Your task to perform on an android device: Set the phone to "Do not disturb". Image 0: 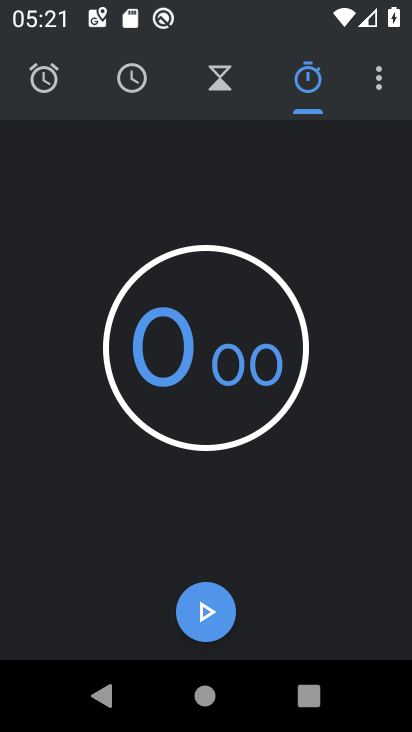
Step 0: press home button
Your task to perform on an android device: Set the phone to "Do not disturb". Image 1: 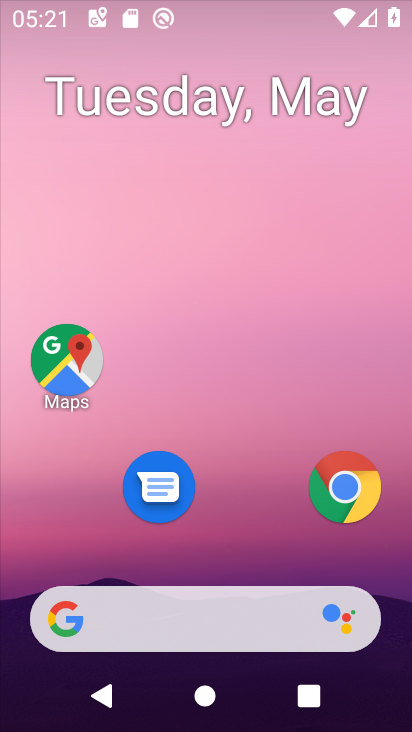
Step 1: drag from (220, 283) to (234, 37)
Your task to perform on an android device: Set the phone to "Do not disturb". Image 2: 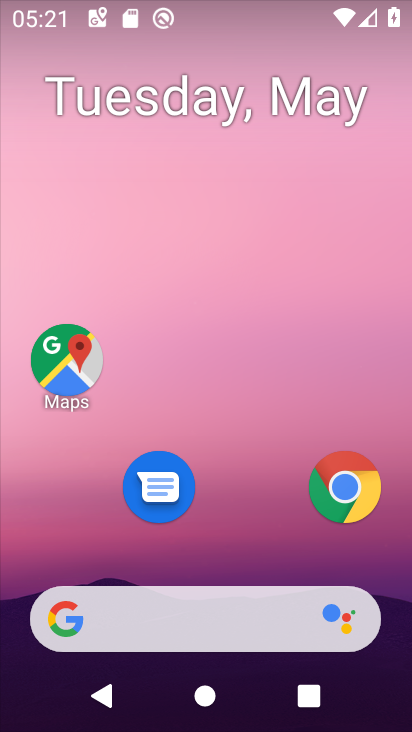
Step 2: drag from (273, 528) to (267, 74)
Your task to perform on an android device: Set the phone to "Do not disturb". Image 3: 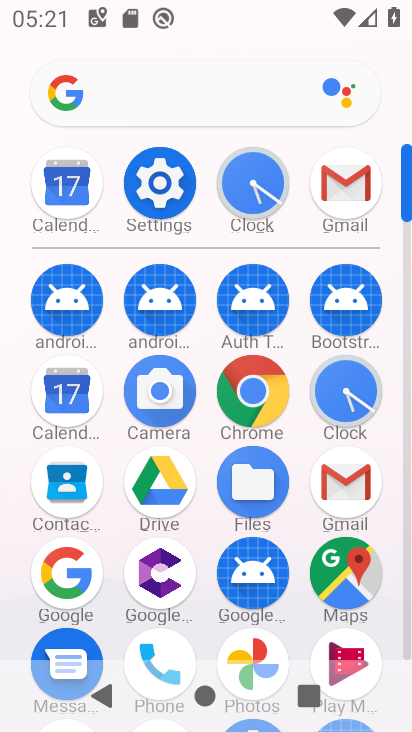
Step 3: click (185, 205)
Your task to perform on an android device: Set the phone to "Do not disturb". Image 4: 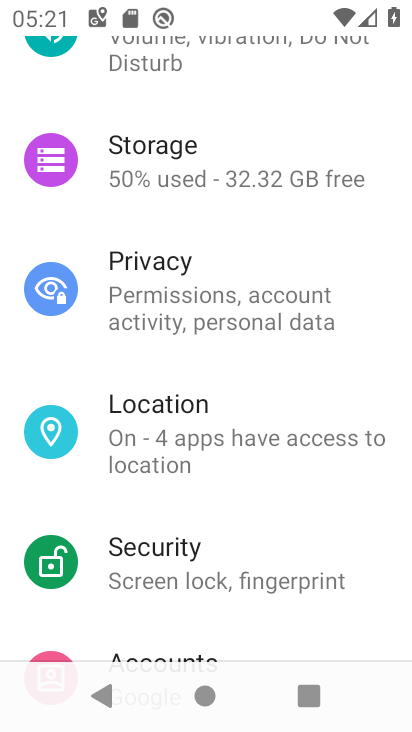
Step 4: drag from (249, 186) to (226, 537)
Your task to perform on an android device: Set the phone to "Do not disturb". Image 5: 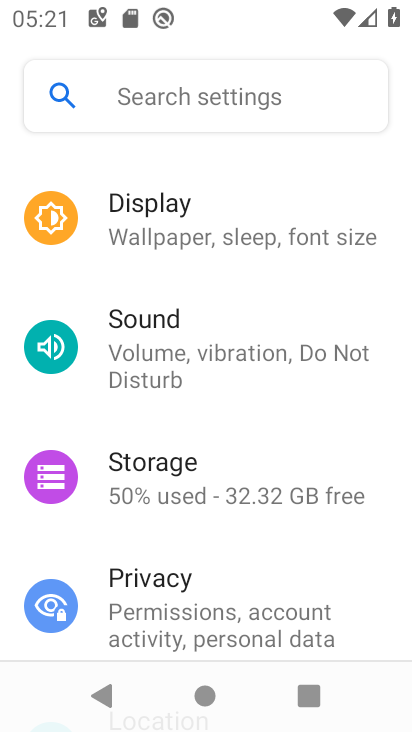
Step 5: click (203, 385)
Your task to perform on an android device: Set the phone to "Do not disturb". Image 6: 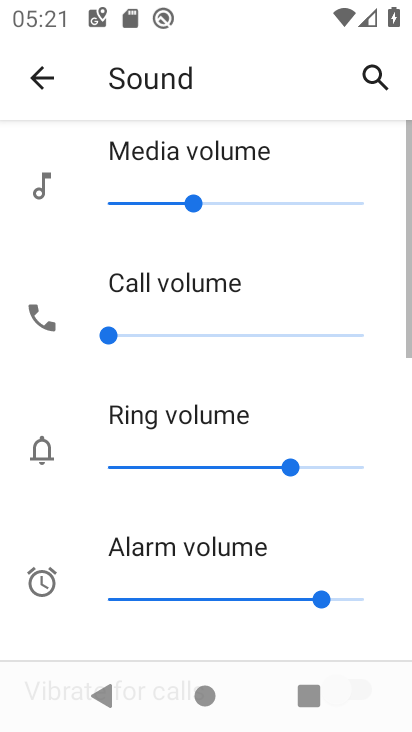
Step 6: drag from (213, 538) to (277, 101)
Your task to perform on an android device: Set the phone to "Do not disturb". Image 7: 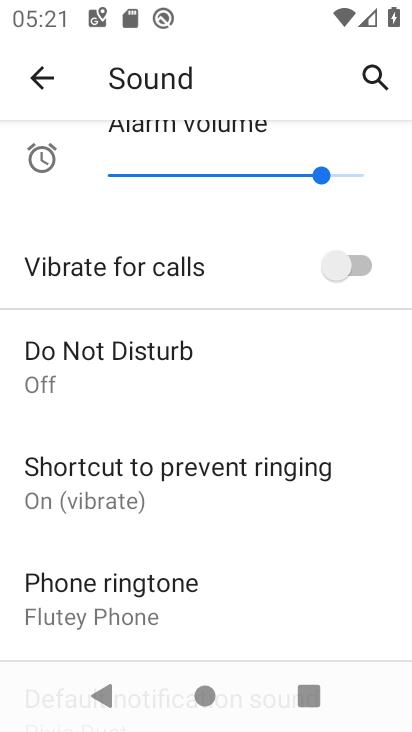
Step 7: drag from (229, 592) to (263, 135)
Your task to perform on an android device: Set the phone to "Do not disturb". Image 8: 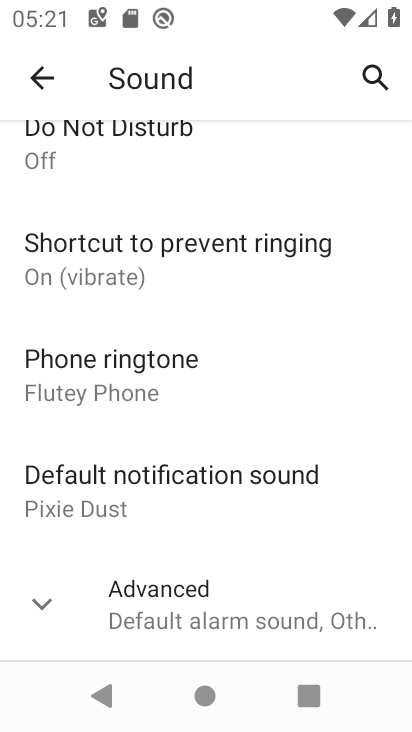
Step 8: click (111, 171)
Your task to perform on an android device: Set the phone to "Do not disturb". Image 9: 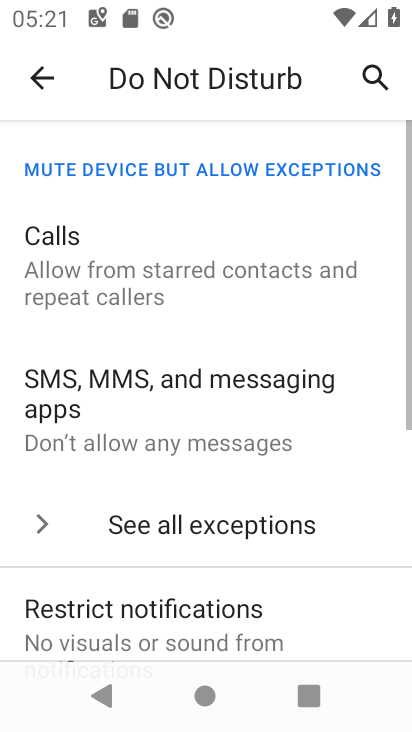
Step 9: drag from (170, 521) to (168, 155)
Your task to perform on an android device: Set the phone to "Do not disturb". Image 10: 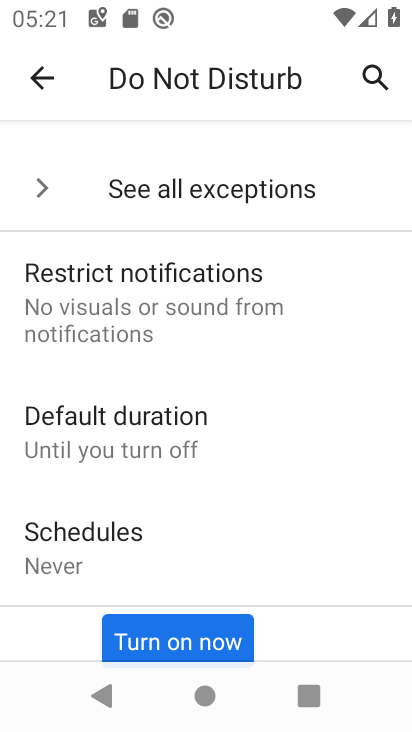
Step 10: click (169, 633)
Your task to perform on an android device: Set the phone to "Do not disturb". Image 11: 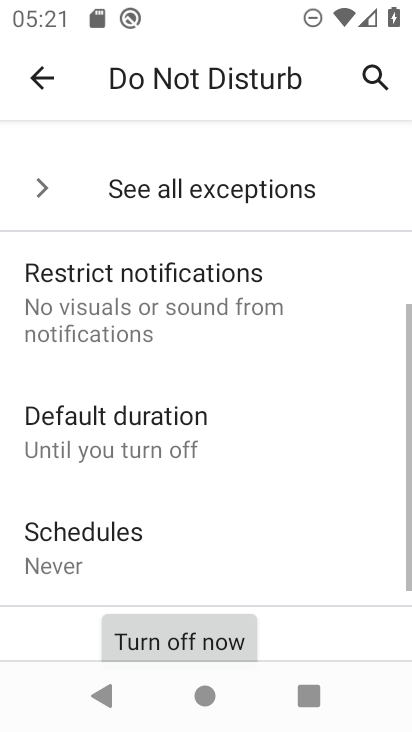
Step 11: task complete